Your task to perform on an android device: What's on my calendar today? Image 0: 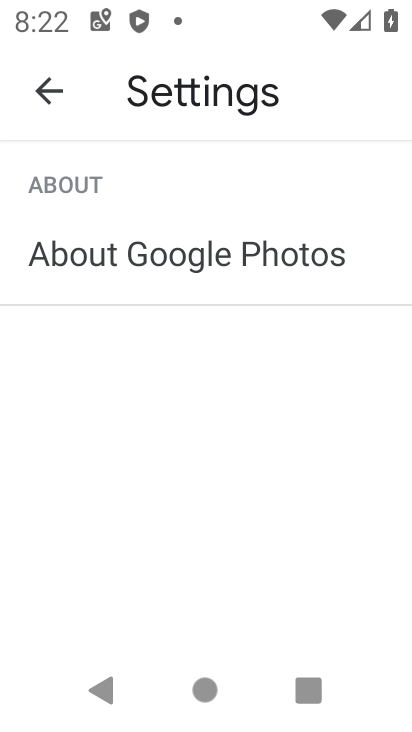
Step 0: press home button
Your task to perform on an android device: What's on my calendar today? Image 1: 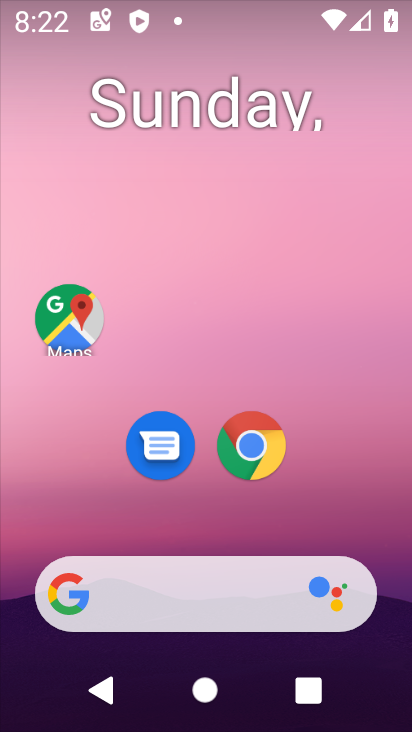
Step 1: drag from (49, 620) to (246, 227)
Your task to perform on an android device: What's on my calendar today? Image 2: 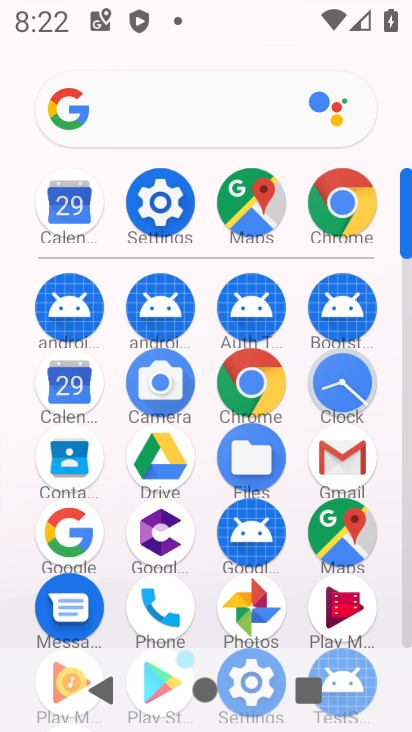
Step 2: click (86, 386)
Your task to perform on an android device: What's on my calendar today? Image 3: 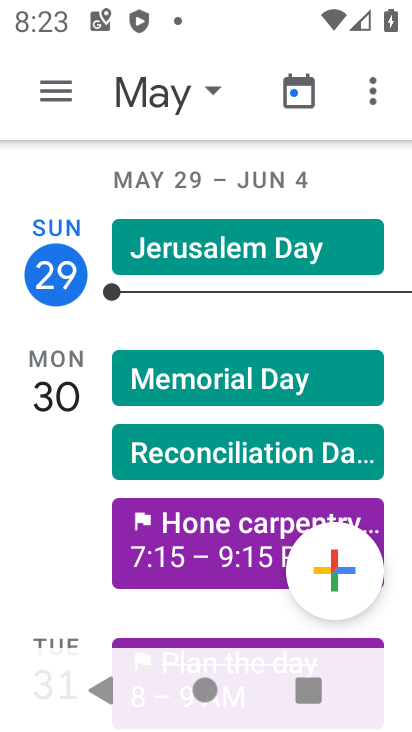
Step 3: task complete